Your task to perform on an android device: install app "Gmail" Image 0: 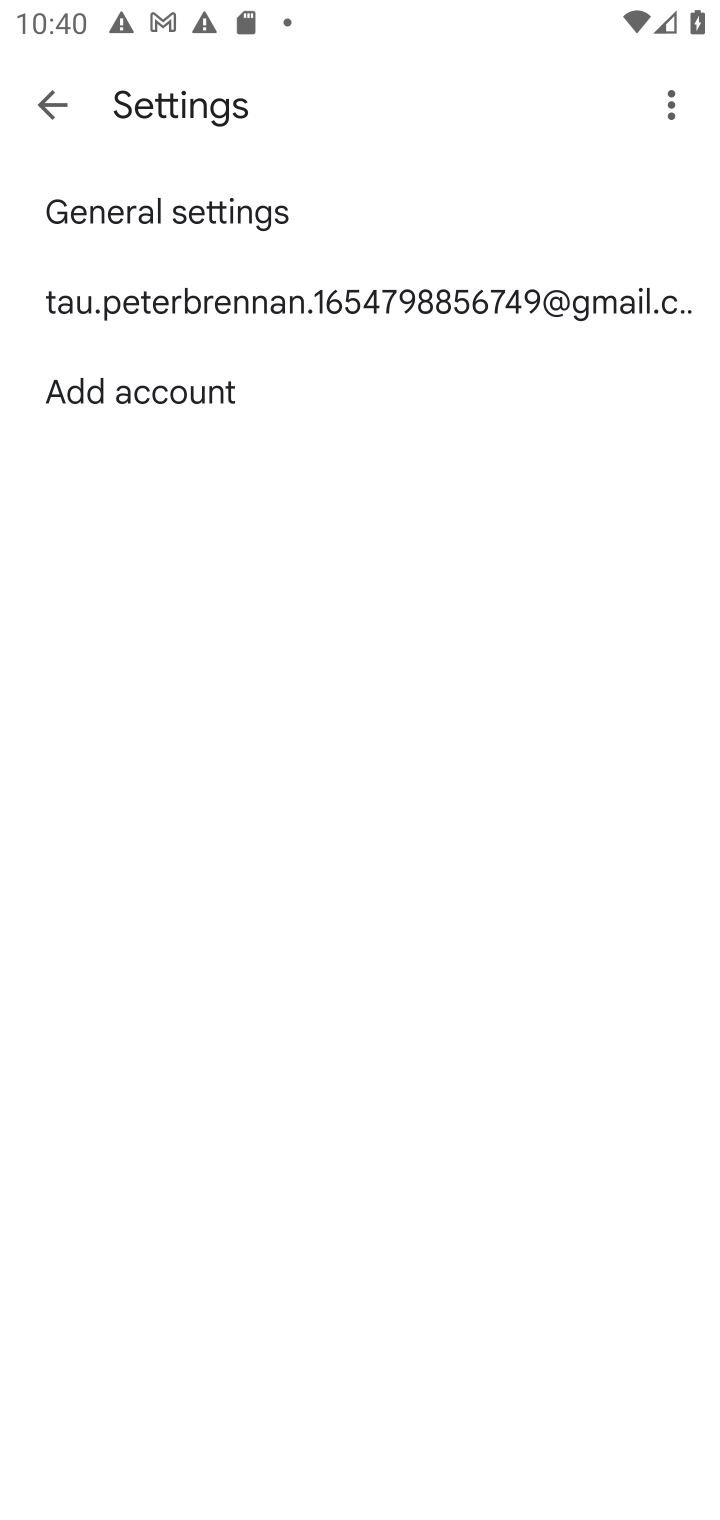
Step 0: press home button
Your task to perform on an android device: install app "Gmail" Image 1: 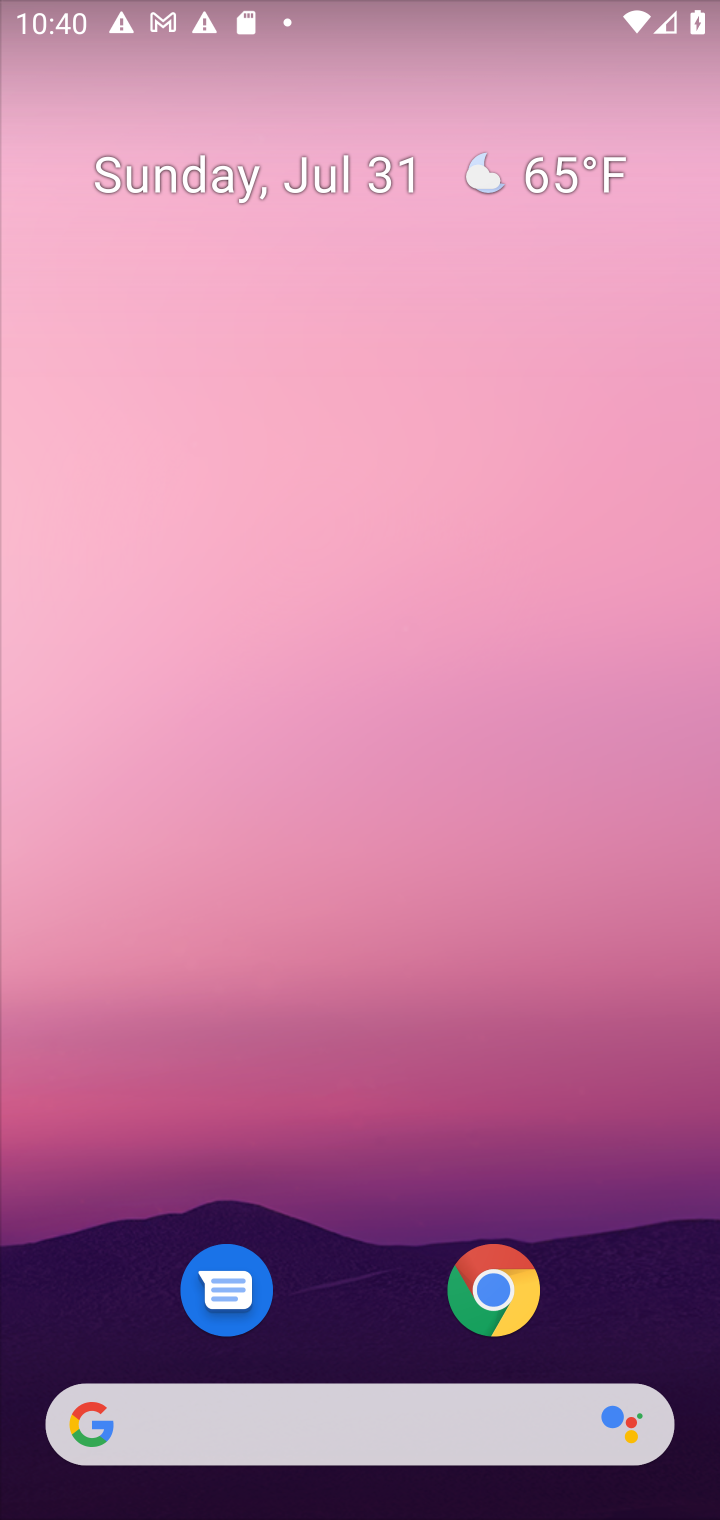
Step 1: drag from (612, 1151) to (638, 161)
Your task to perform on an android device: install app "Gmail" Image 2: 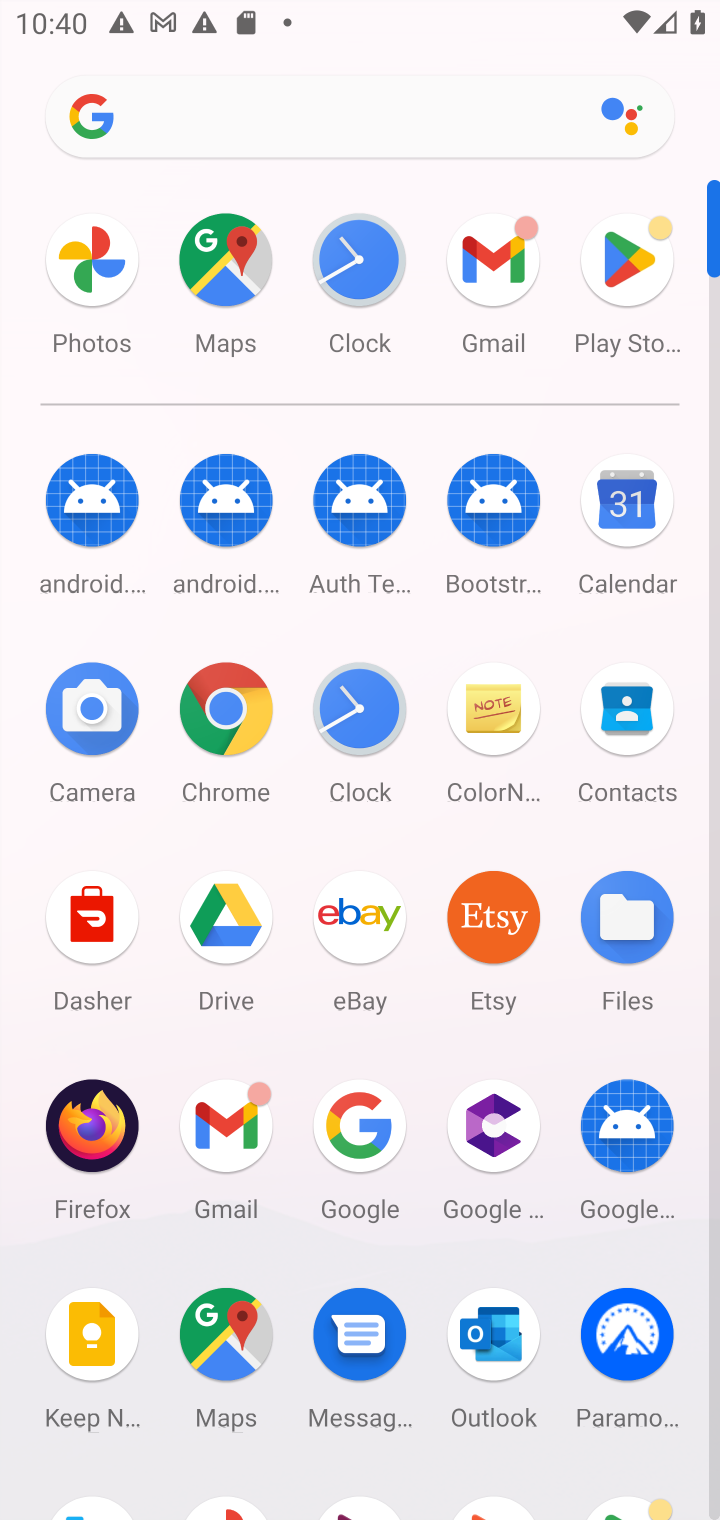
Step 2: click (629, 262)
Your task to perform on an android device: install app "Gmail" Image 3: 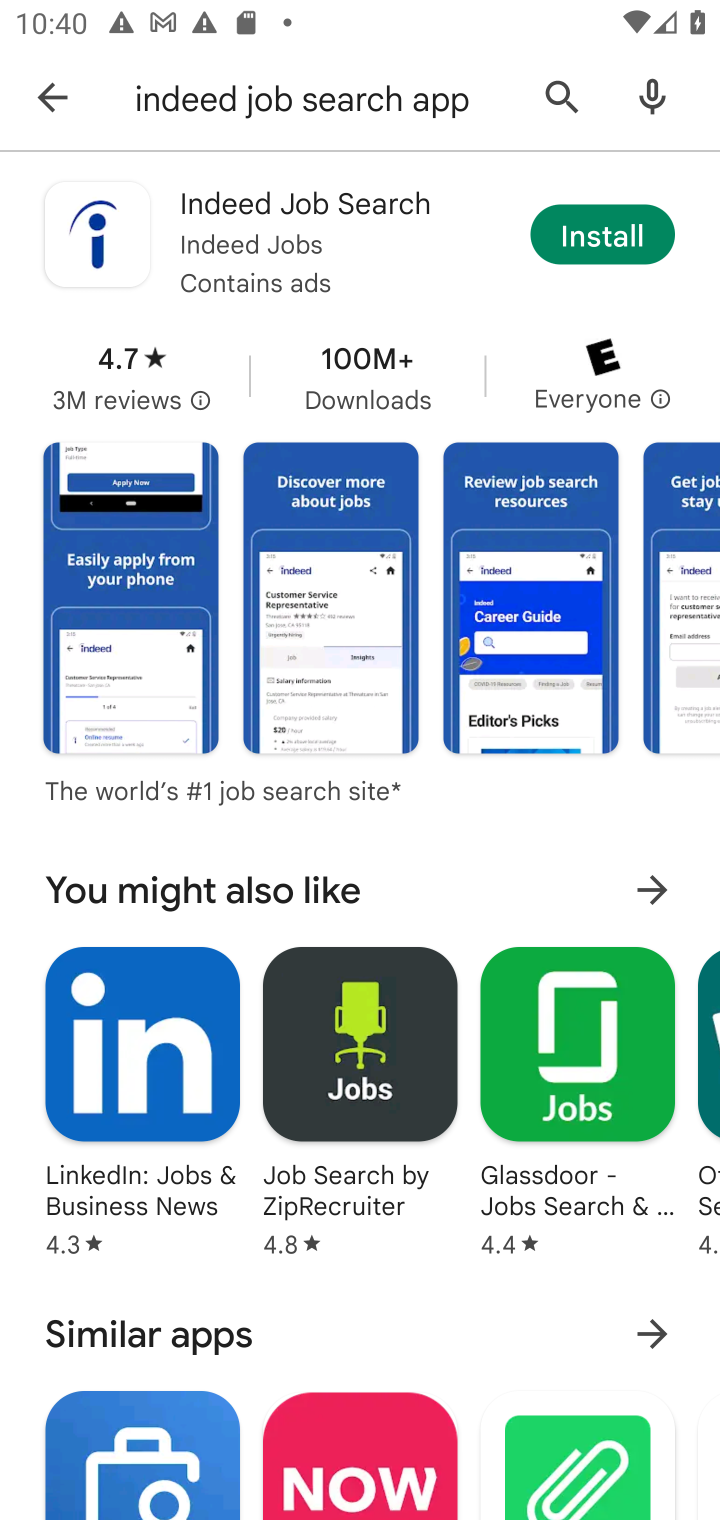
Step 3: click (556, 86)
Your task to perform on an android device: install app "Gmail" Image 4: 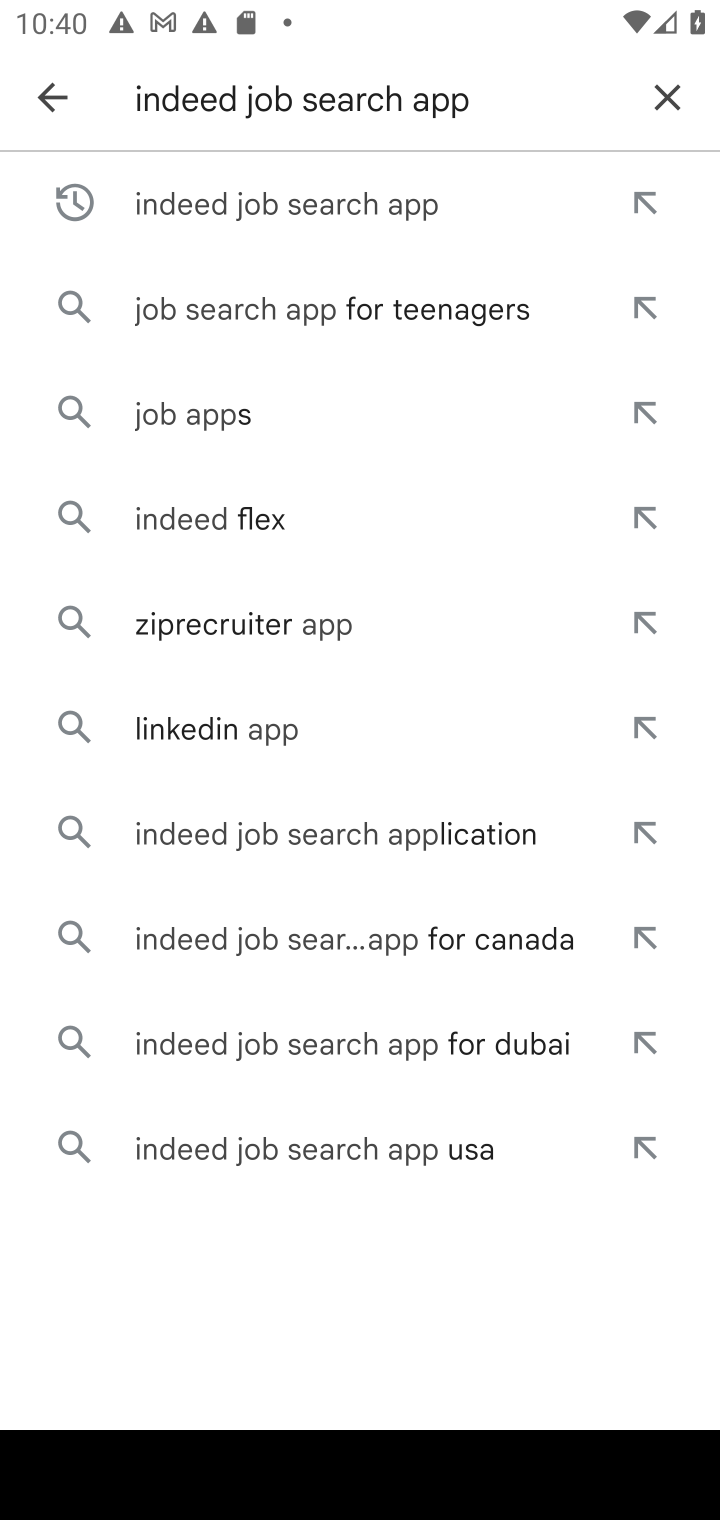
Step 4: click (660, 96)
Your task to perform on an android device: install app "Gmail" Image 5: 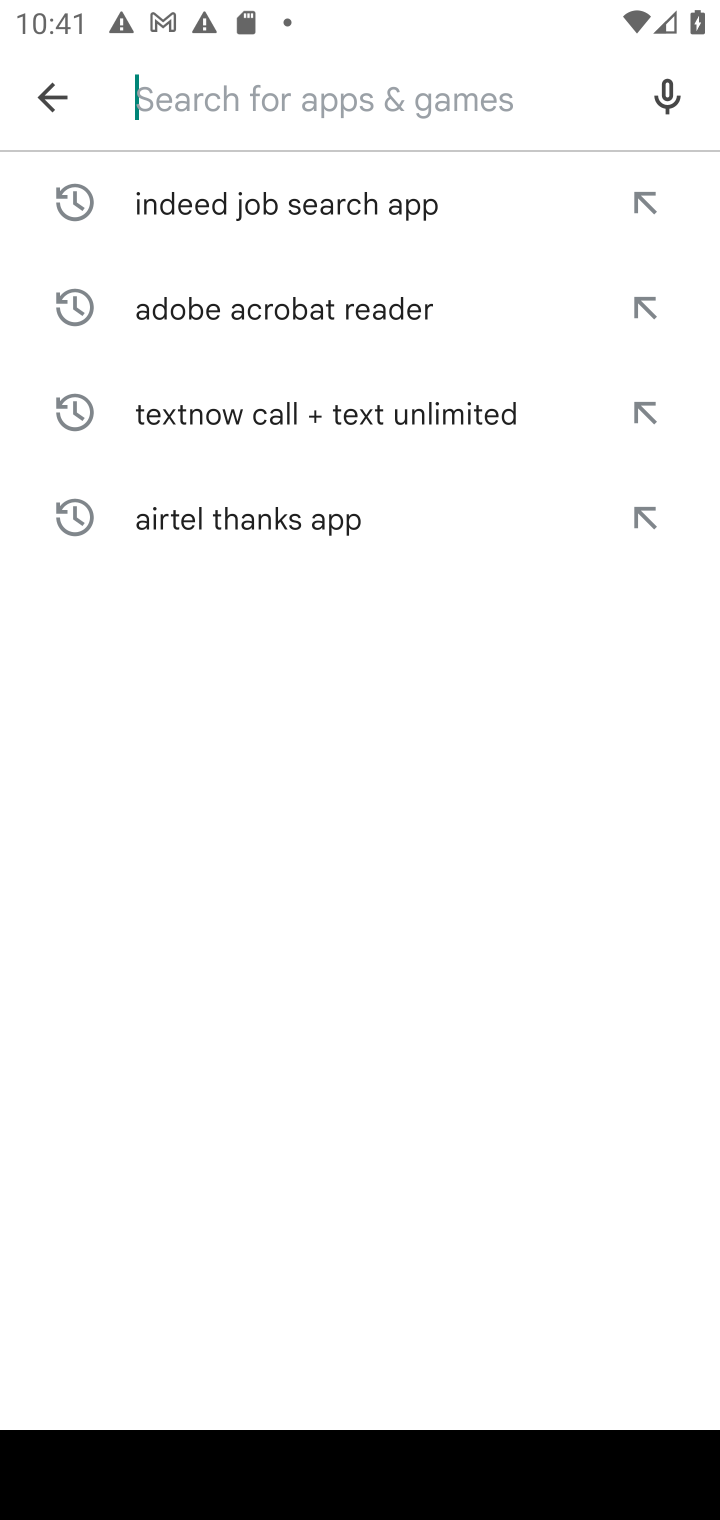
Step 5: type "gmail"
Your task to perform on an android device: install app "Gmail" Image 6: 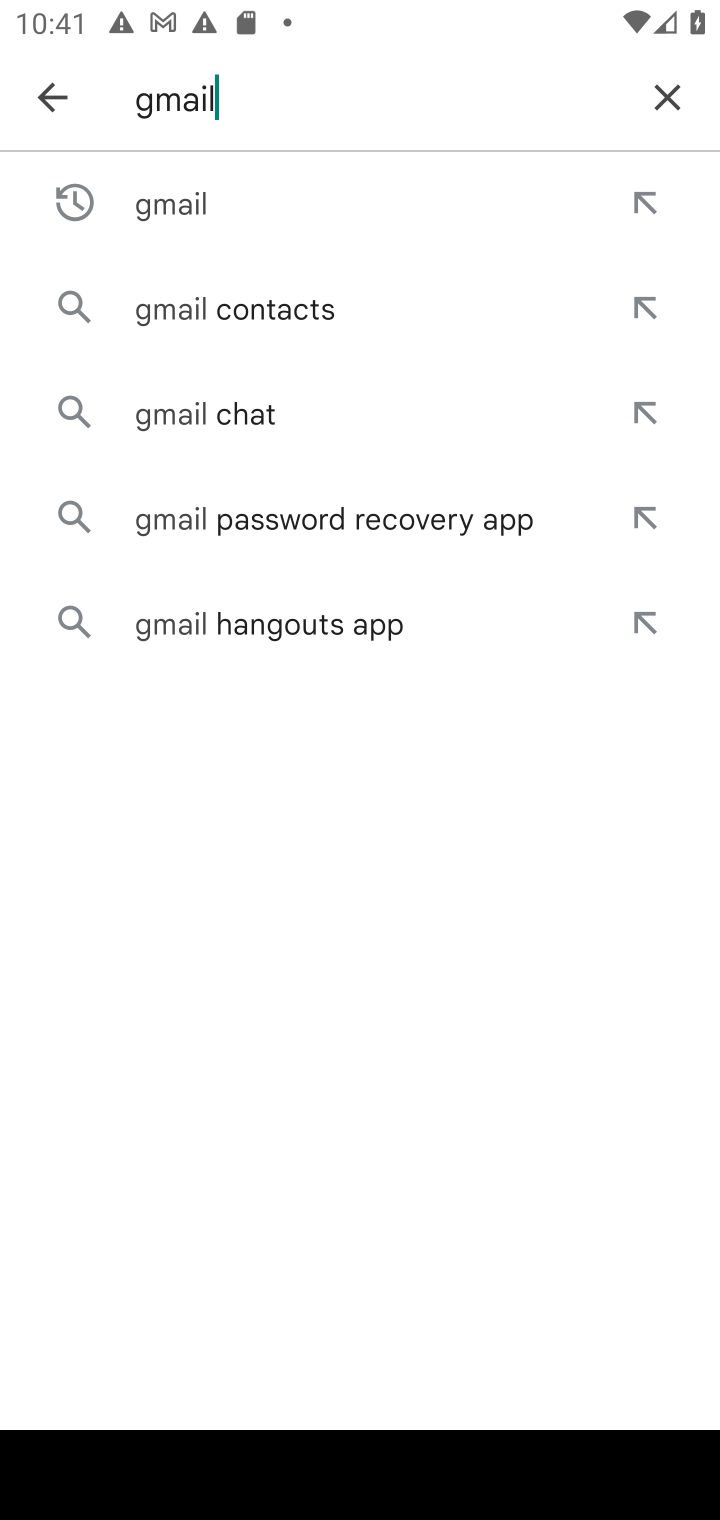
Step 6: click (373, 208)
Your task to perform on an android device: install app "Gmail" Image 7: 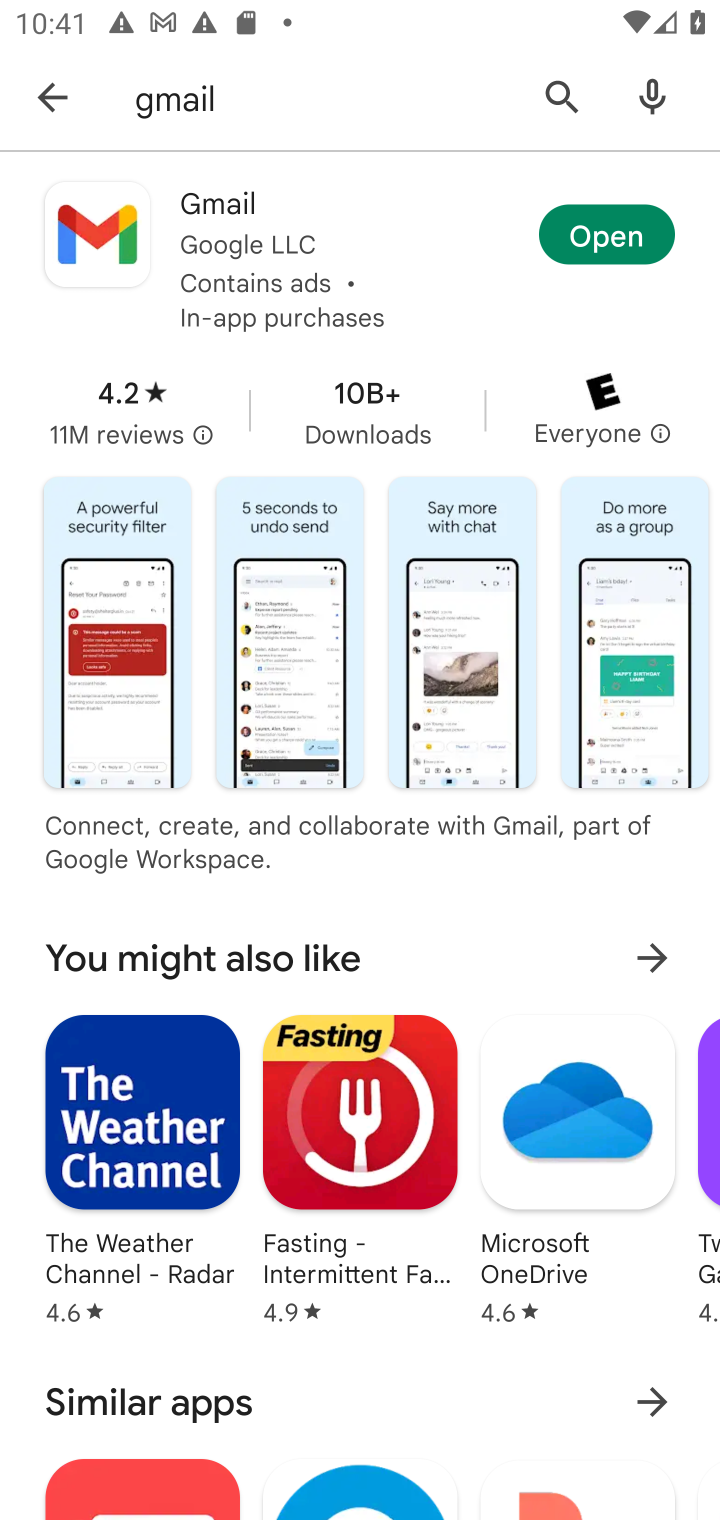
Step 7: task complete